Your task to perform on an android device: check android version Image 0: 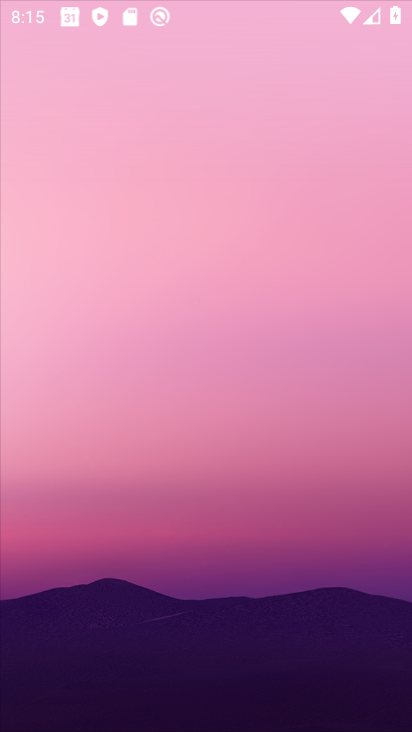
Step 0: drag from (181, 722) to (184, 194)
Your task to perform on an android device: check android version Image 1: 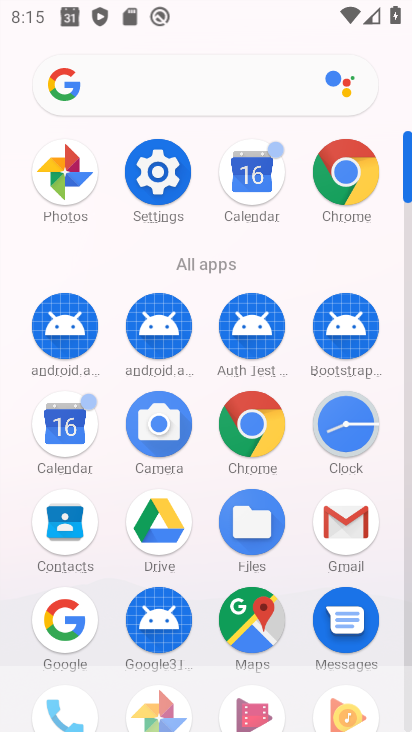
Step 1: click (157, 174)
Your task to perform on an android device: check android version Image 2: 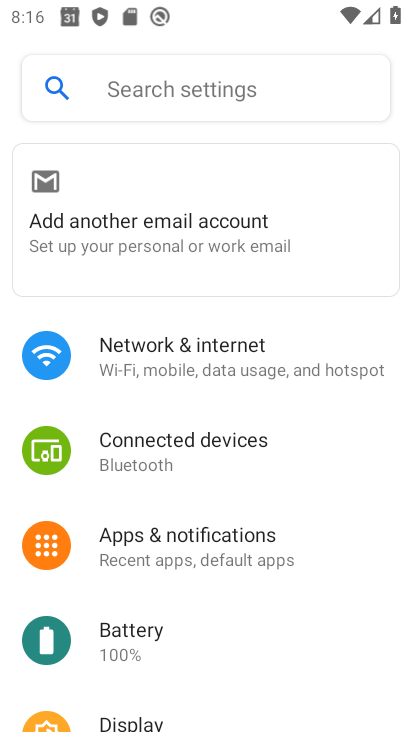
Step 2: drag from (150, 648) to (181, 183)
Your task to perform on an android device: check android version Image 3: 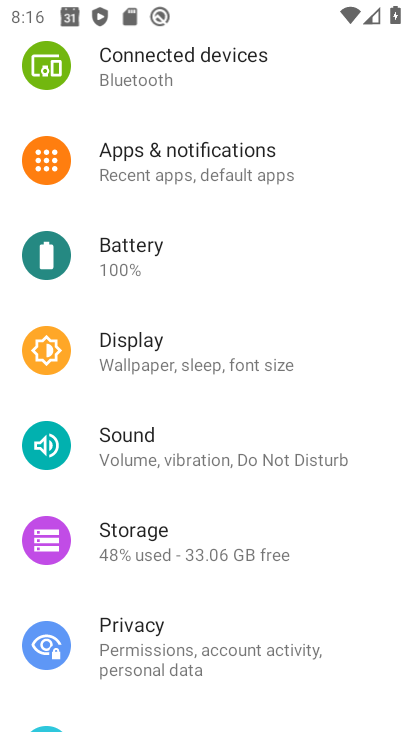
Step 3: drag from (197, 659) to (227, 372)
Your task to perform on an android device: check android version Image 4: 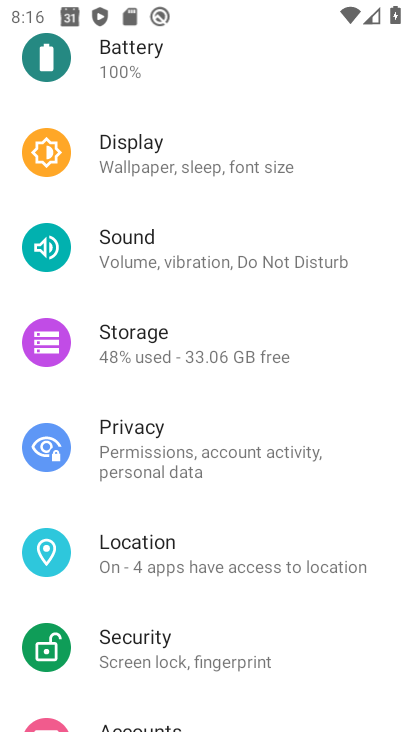
Step 4: drag from (207, 693) to (218, 320)
Your task to perform on an android device: check android version Image 5: 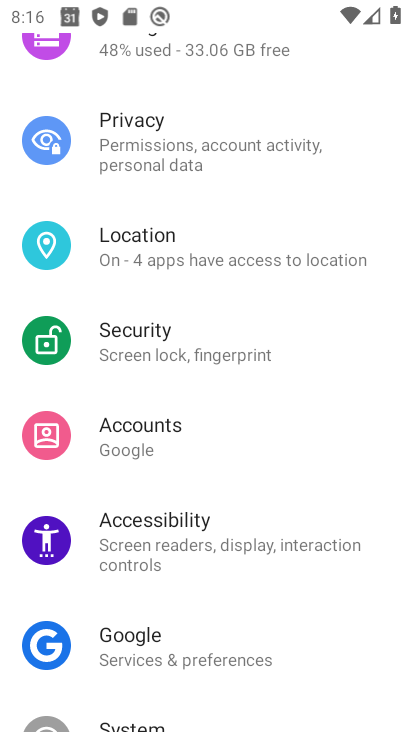
Step 5: drag from (181, 687) to (187, 236)
Your task to perform on an android device: check android version Image 6: 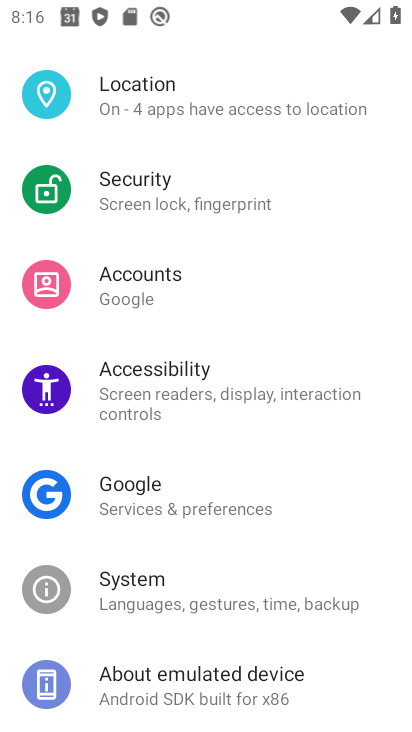
Step 6: drag from (166, 662) to (168, 226)
Your task to perform on an android device: check android version Image 7: 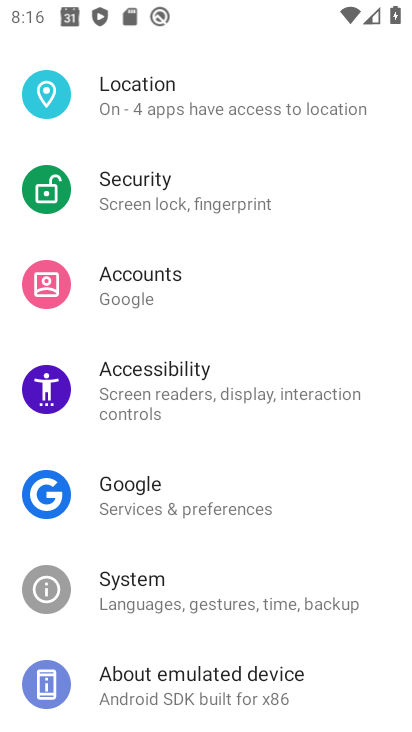
Step 7: click (139, 677)
Your task to perform on an android device: check android version Image 8: 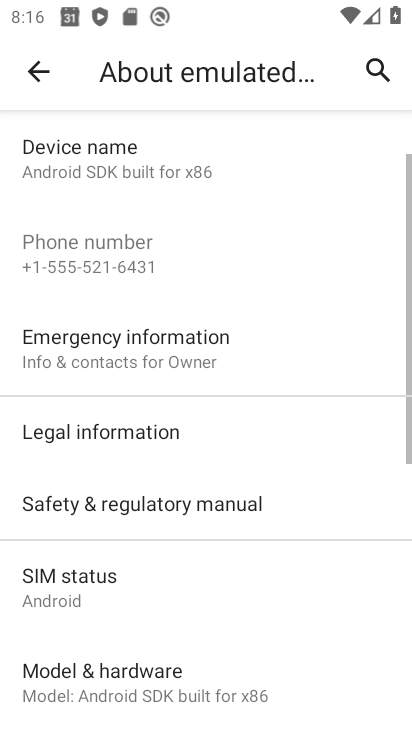
Step 8: drag from (183, 661) to (186, 232)
Your task to perform on an android device: check android version Image 9: 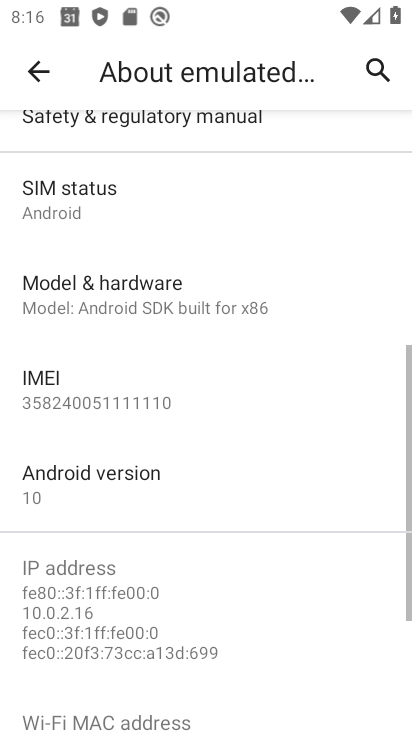
Step 9: drag from (162, 663) to (144, 297)
Your task to perform on an android device: check android version Image 10: 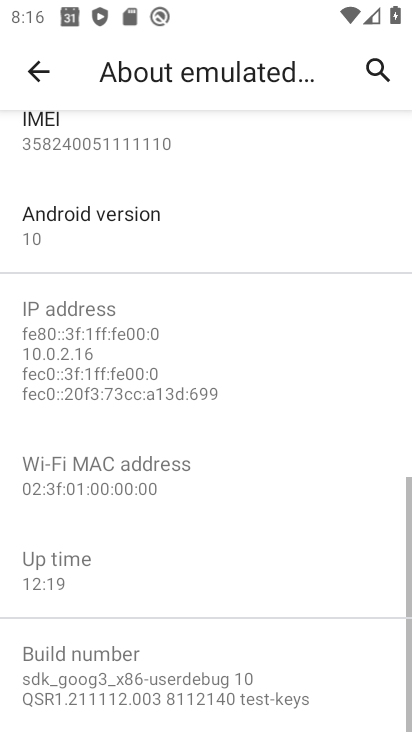
Step 10: drag from (140, 640) to (143, 329)
Your task to perform on an android device: check android version Image 11: 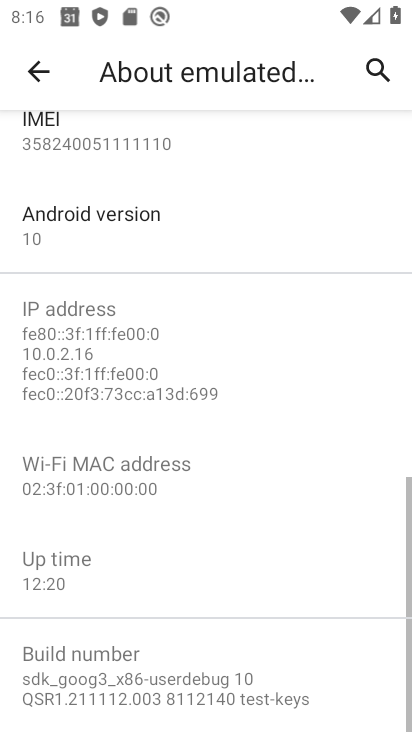
Step 11: click (122, 210)
Your task to perform on an android device: check android version Image 12: 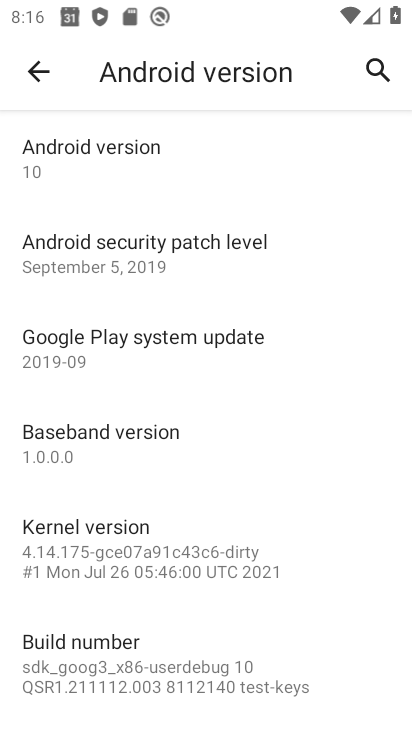
Step 12: task complete